Your task to perform on an android device: change the clock display to analog Image 0: 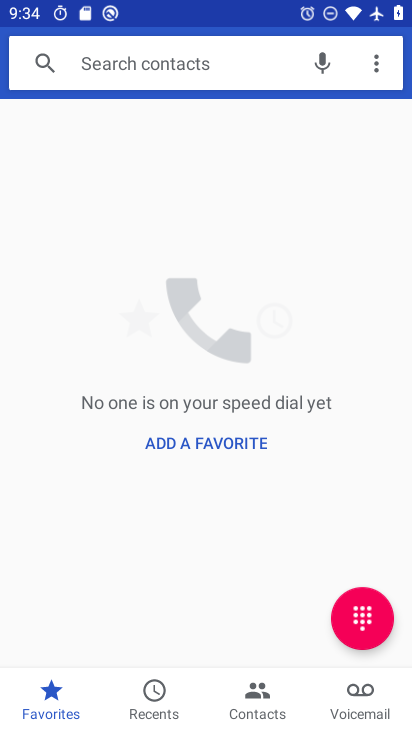
Step 0: press home button
Your task to perform on an android device: change the clock display to analog Image 1: 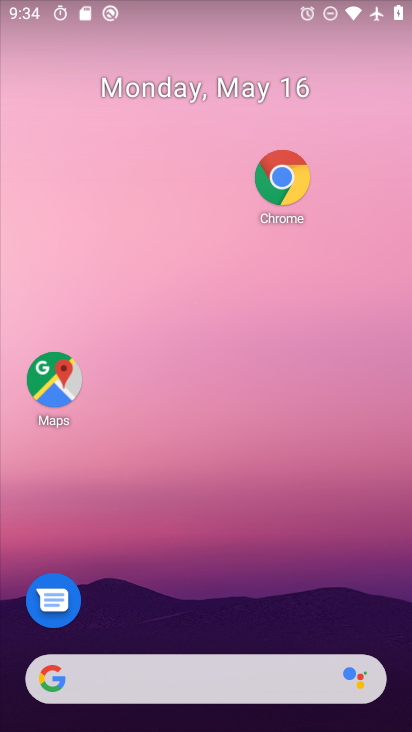
Step 1: drag from (181, 666) to (312, 242)
Your task to perform on an android device: change the clock display to analog Image 2: 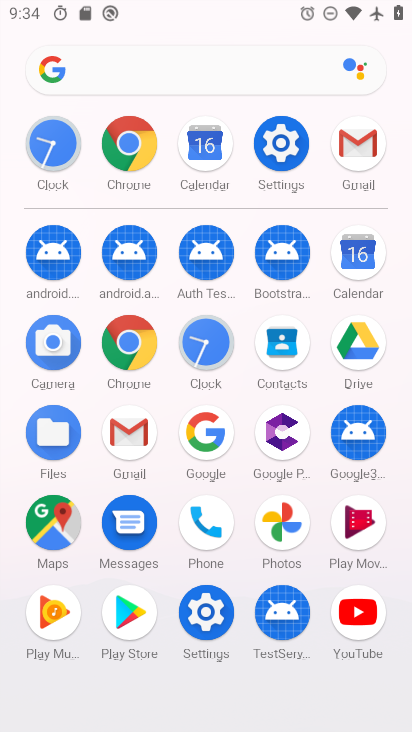
Step 2: click (215, 353)
Your task to perform on an android device: change the clock display to analog Image 3: 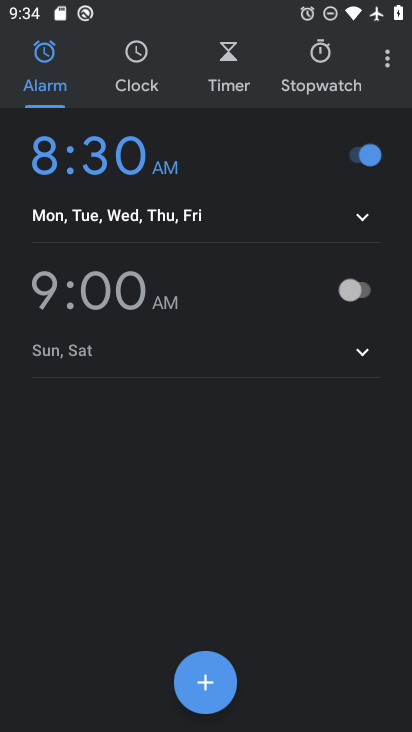
Step 3: click (393, 55)
Your task to perform on an android device: change the clock display to analog Image 4: 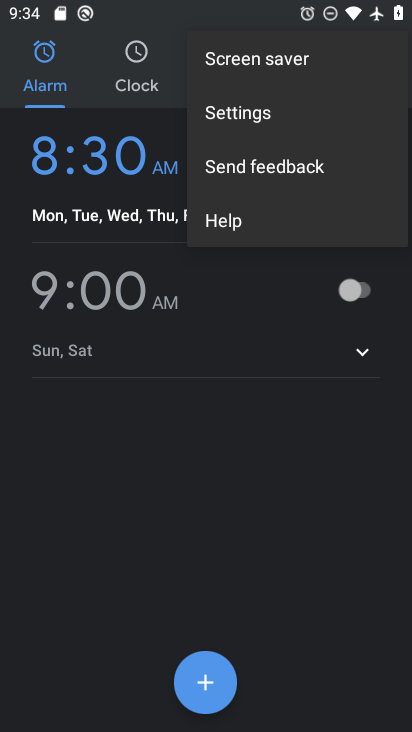
Step 4: click (254, 110)
Your task to perform on an android device: change the clock display to analog Image 5: 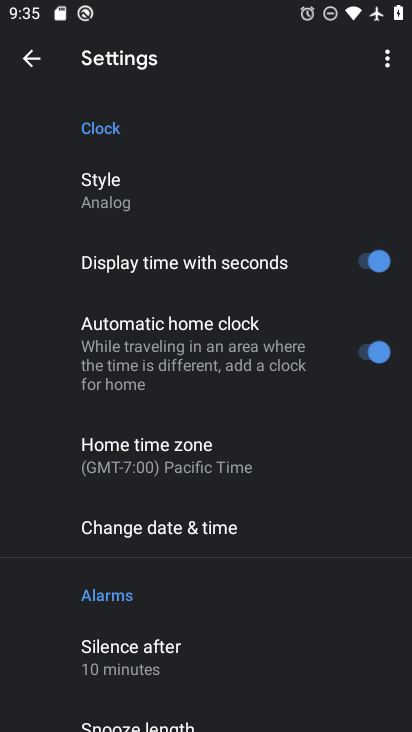
Step 5: task complete